Your task to perform on an android device: Open Yahoo.com Image 0: 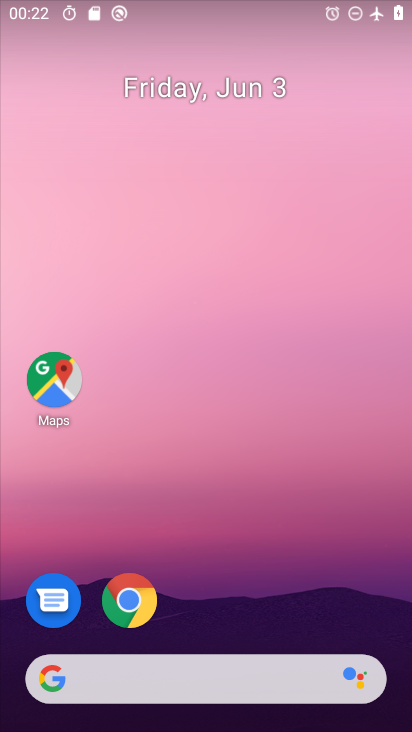
Step 0: click (135, 599)
Your task to perform on an android device: Open Yahoo.com Image 1: 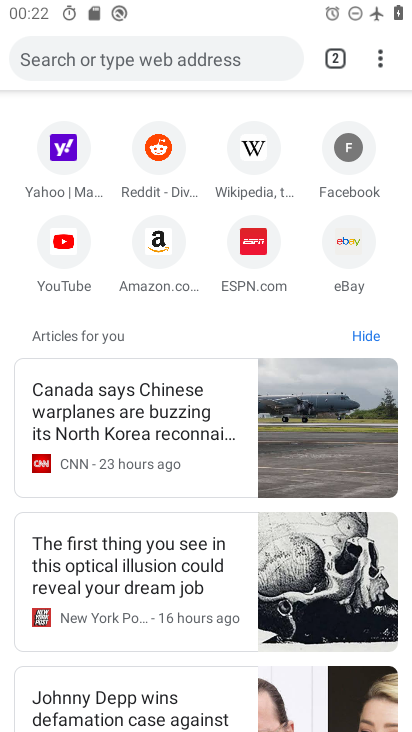
Step 1: click (64, 147)
Your task to perform on an android device: Open Yahoo.com Image 2: 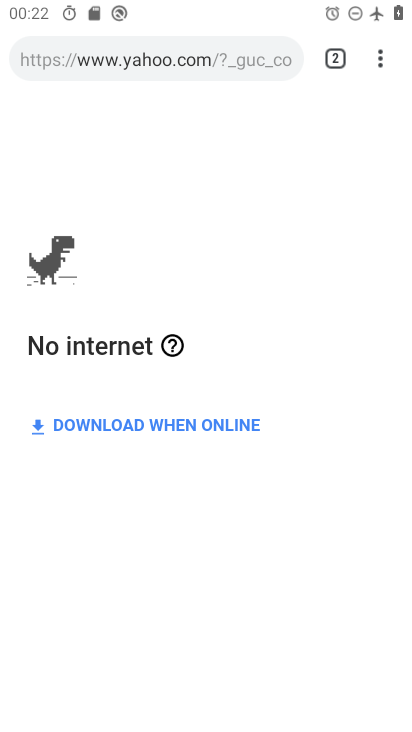
Step 2: task complete